Your task to perform on an android device: move an email to a new category in the gmail app Image 0: 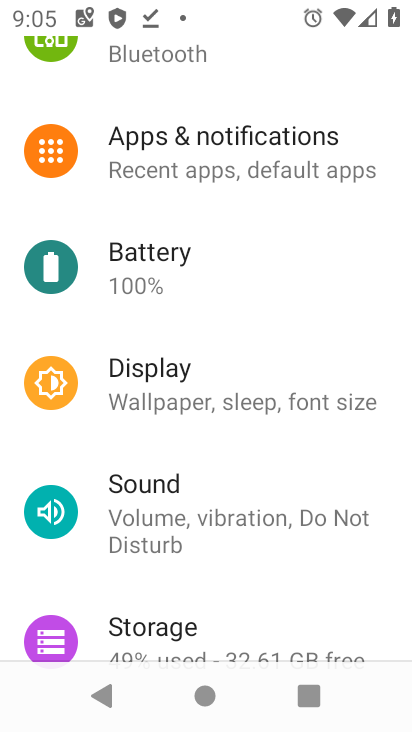
Step 0: press back button
Your task to perform on an android device: move an email to a new category in the gmail app Image 1: 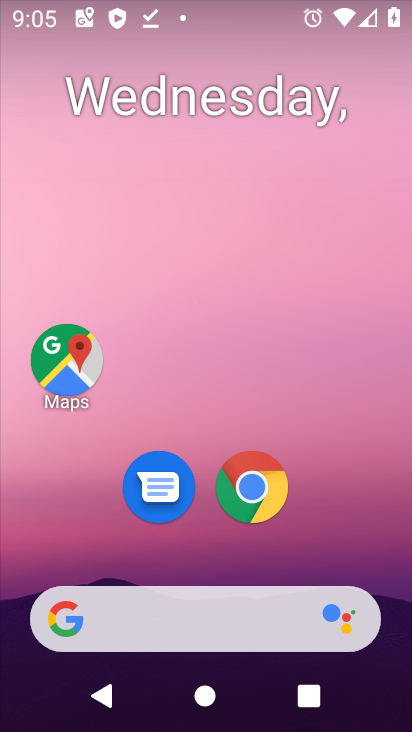
Step 1: drag from (278, 619) to (185, 66)
Your task to perform on an android device: move an email to a new category in the gmail app Image 2: 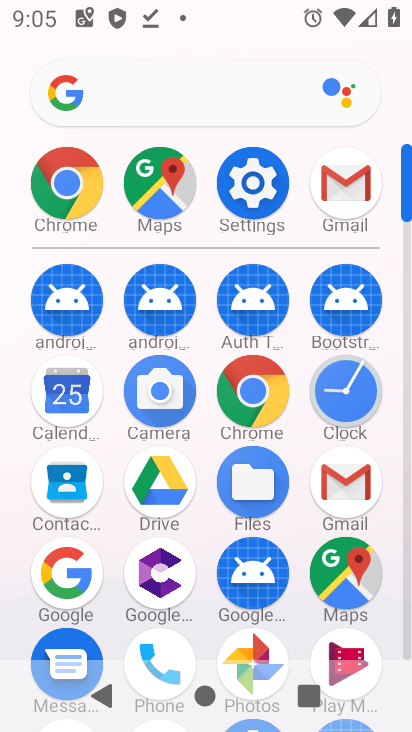
Step 2: click (341, 451)
Your task to perform on an android device: move an email to a new category in the gmail app Image 3: 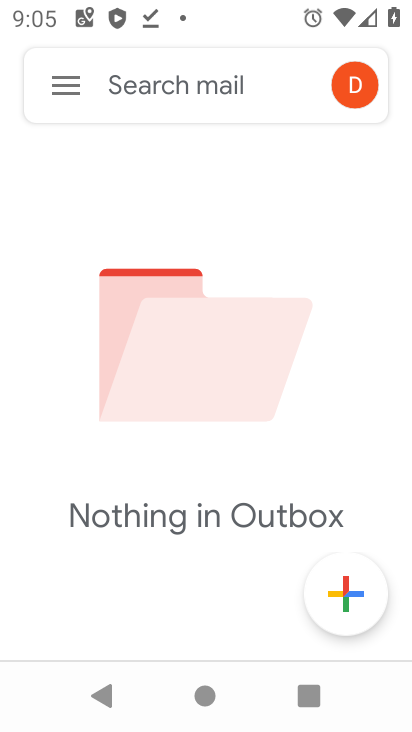
Step 3: drag from (51, 92) to (78, 364)
Your task to perform on an android device: move an email to a new category in the gmail app Image 4: 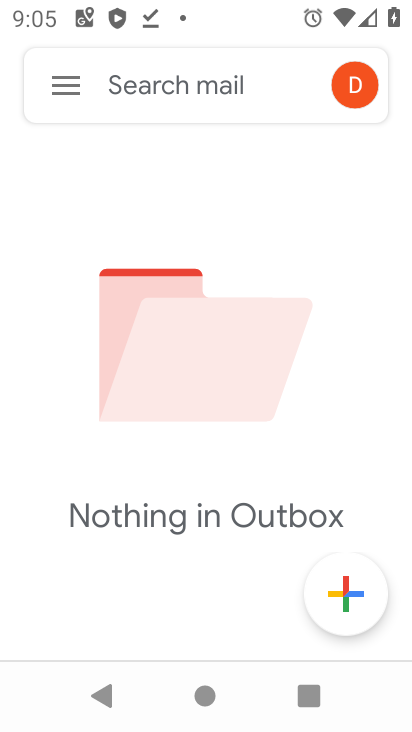
Step 4: click (71, 75)
Your task to perform on an android device: move an email to a new category in the gmail app Image 5: 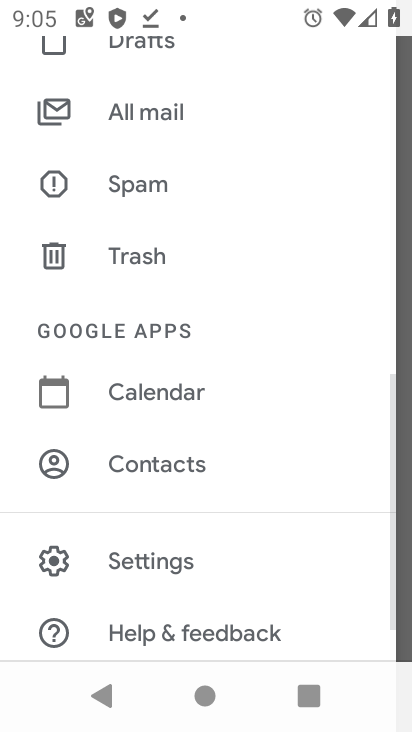
Step 5: click (144, 110)
Your task to perform on an android device: move an email to a new category in the gmail app Image 6: 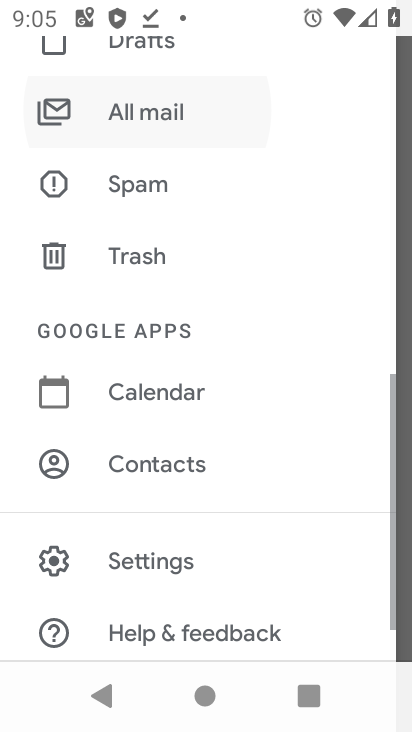
Step 6: click (148, 109)
Your task to perform on an android device: move an email to a new category in the gmail app Image 7: 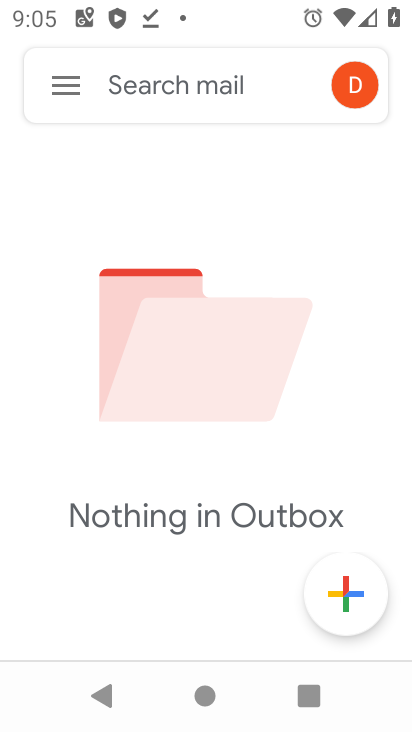
Step 7: click (151, 108)
Your task to perform on an android device: move an email to a new category in the gmail app Image 8: 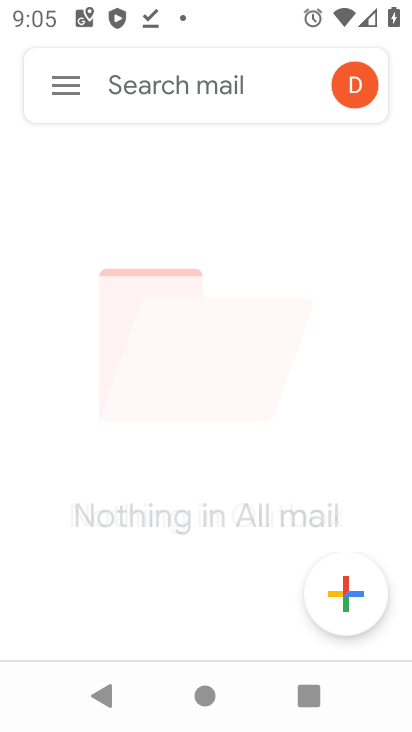
Step 8: click (151, 108)
Your task to perform on an android device: move an email to a new category in the gmail app Image 9: 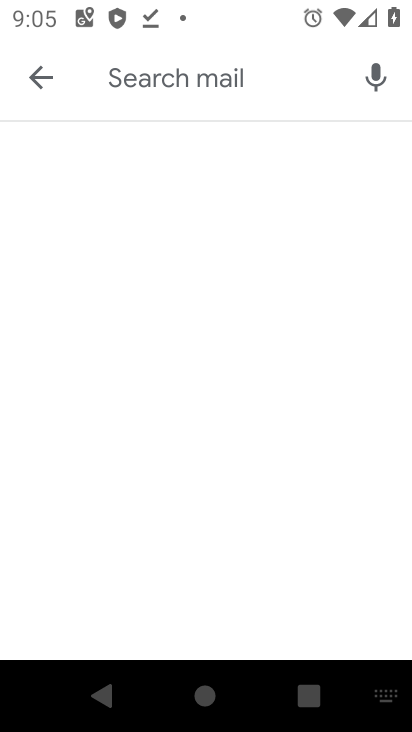
Step 9: click (36, 78)
Your task to perform on an android device: move an email to a new category in the gmail app Image 10: 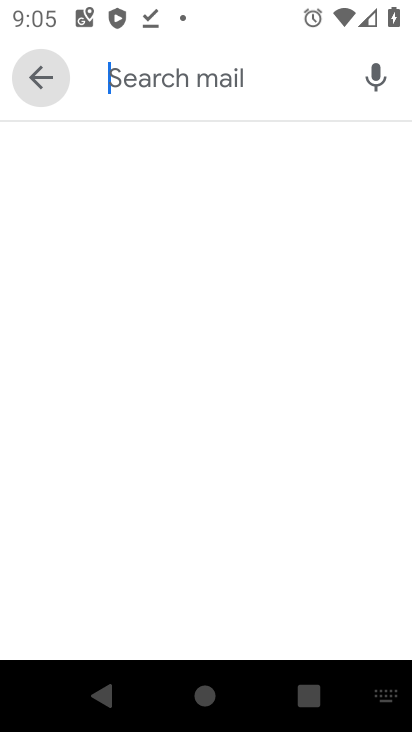
Step 10: click (40, 75)
Your task to perform on an android device: move an email to a new category in the gmail app Image 11: 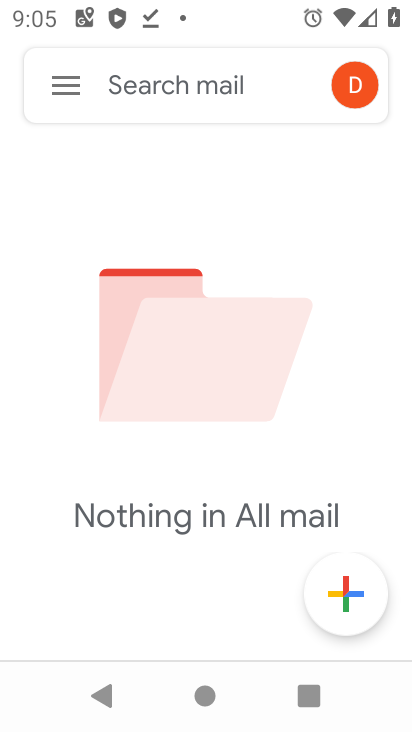
Step 11: task complete